Your task to perform on an android device: Open the stopwatch Image 0: 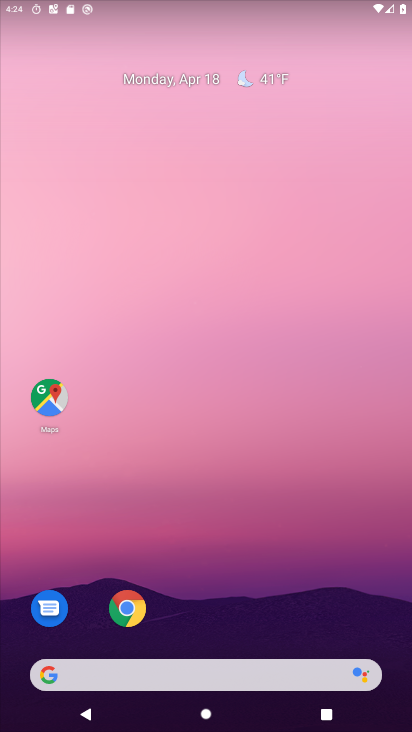
Step 0: drag from (261, 629) to (287, 311)
Your task to perform on an android device: Open the stopwatch Image 1: 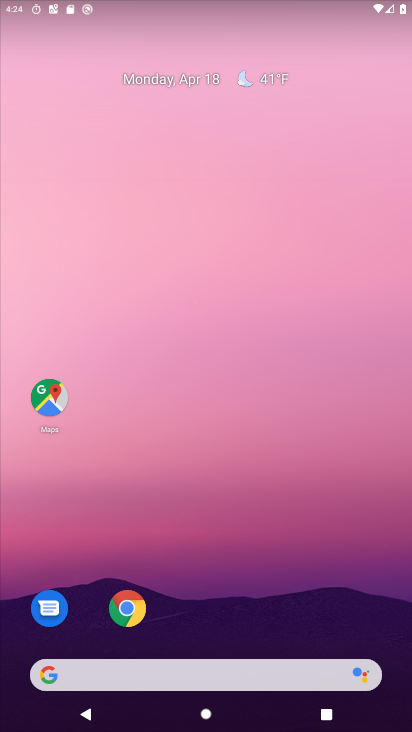
Step 1: drag from (219, 645) to (236, 167)
Your task to perform on an android device: Open the stopwatch Image 2: 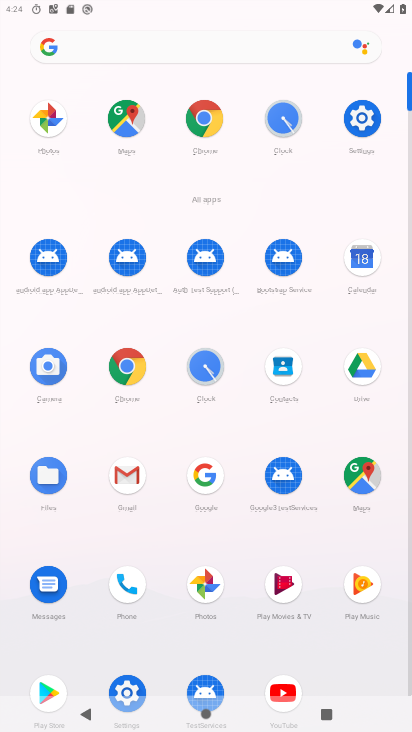
Step 2: click (291, 122)
Your task to perform on an android device: Open the stopwatch Image 3: 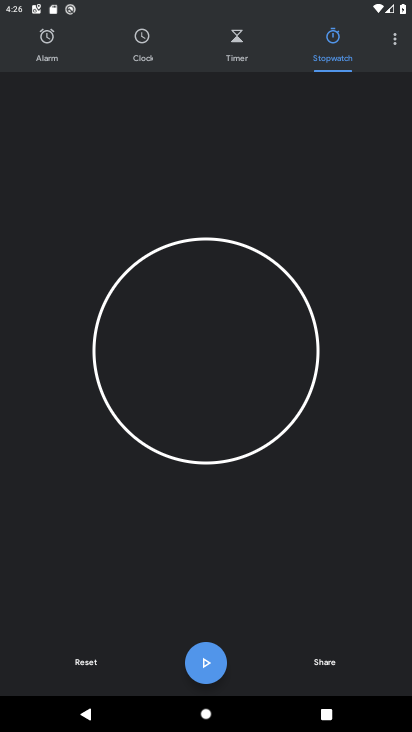
Step 3: task complete